Your task to perform on an android device: show emergency info Image 0: 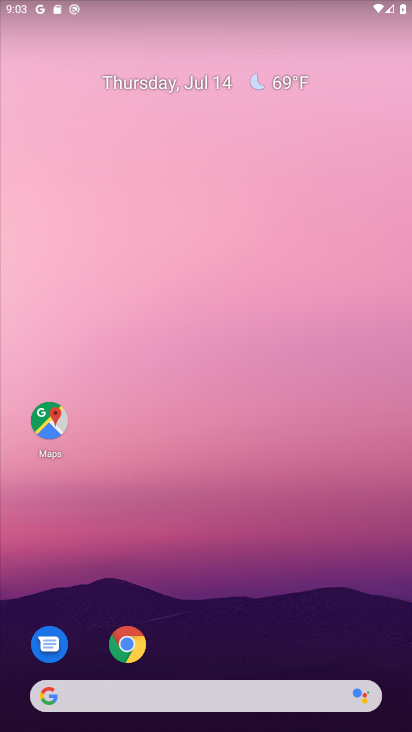
Step 0: drag from (174, 672) to (148, 237)
Your task to perform on an android device: show emergency info Image 1: 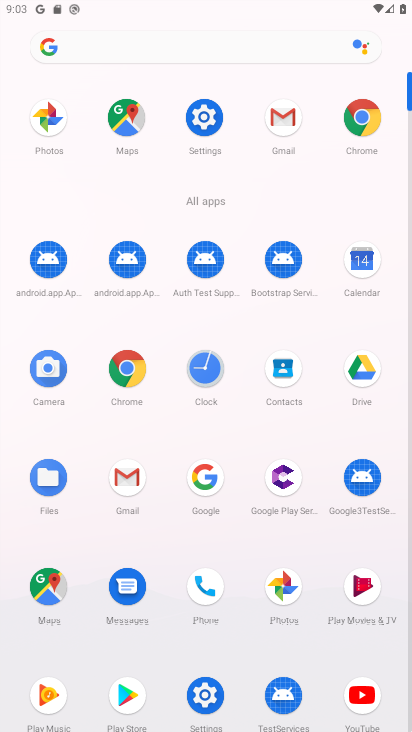
Step 1: click (211, 113)
Your task to perform on an android device: show emergency info Image 2: 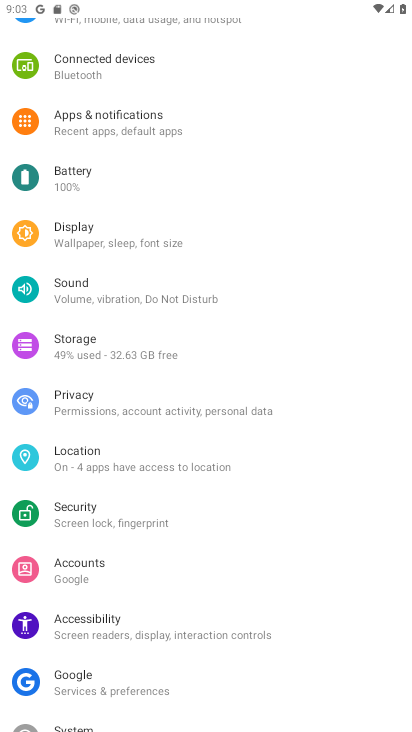
Step 2: drag from (155, 614) to (234, 42)
Your task to perform on an android device: show emergency info Image 3: 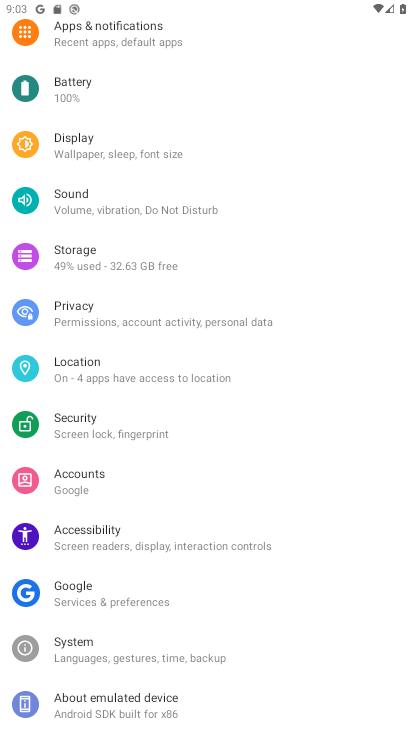
Step 3: drag from (132, 686) to (139, 193)
Your task to perform on an android device: show emergency info Image 4: 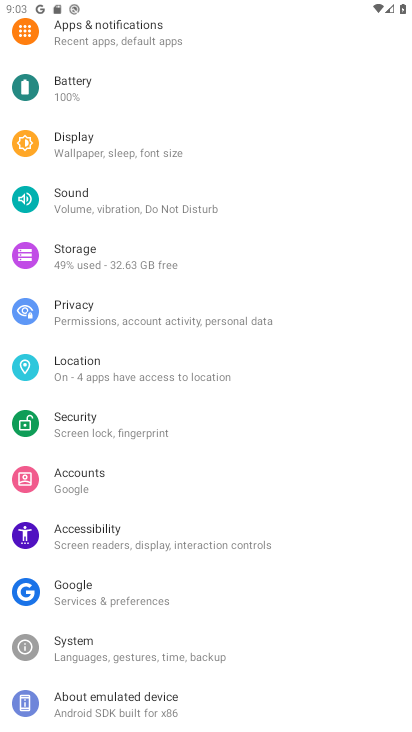
Step 4: click (184, 711)
Your task to perform on an android device: show emergency info Image 5: 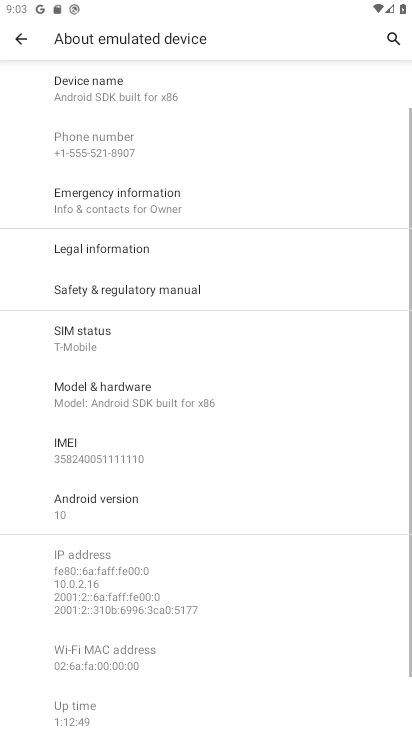
Step 5: click (212, 205)
Your task to perform on an android device: show emergency info Image 6: 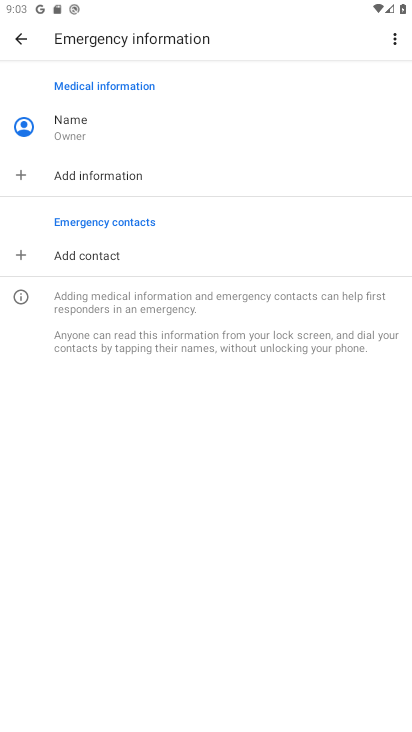
Step 6: task complete